Your task to perform on an android device: Search for a 1/4" hex shank drill bit on Lowe's. Image 0: 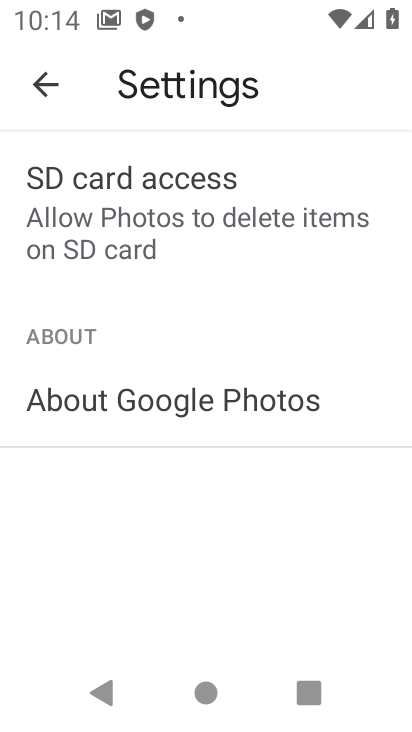
Step 0: press home button
Your task to perform on an android device: Search for a 1/4" hex shank drill bit on Lowe's. Image 1: 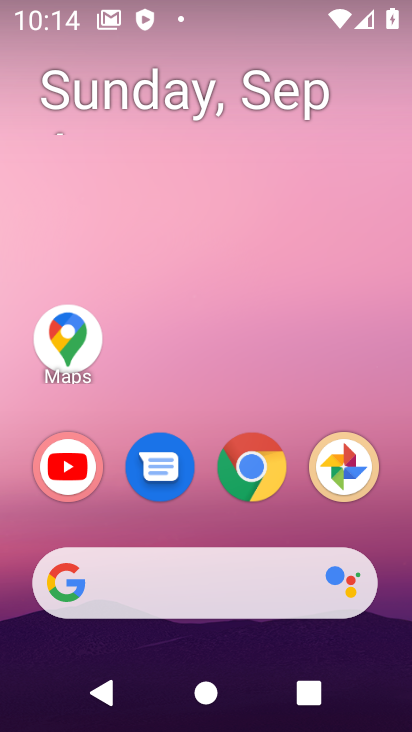
Step 1: click (259, 463)
Your task to perform on an android device: Search for a 1/4" hex shank drill bit on Lowe's. Image 2: 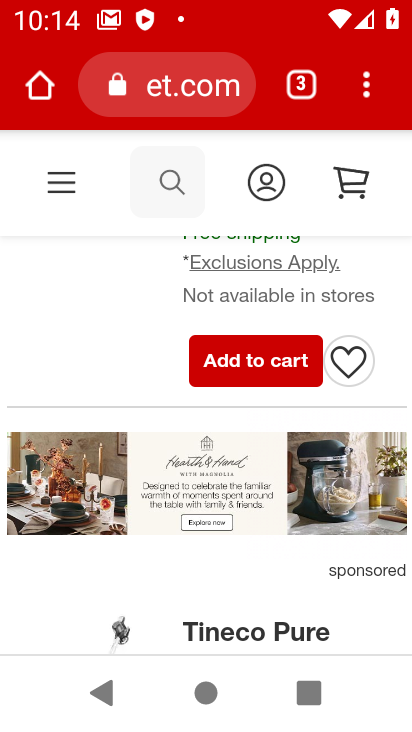
Step 2: click (185, 95)
Your task to perform on an android device: Search for a 1/4" hex shank drill bit on Lowe's. Image 3: 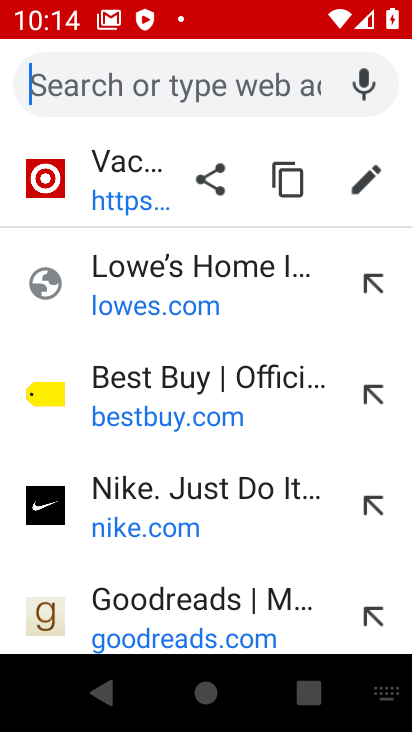
Step 3: type "lowes"
Your task to perform on an android device: Search for a 1/4" hex shank drill bit on Lowe's. Image 4: 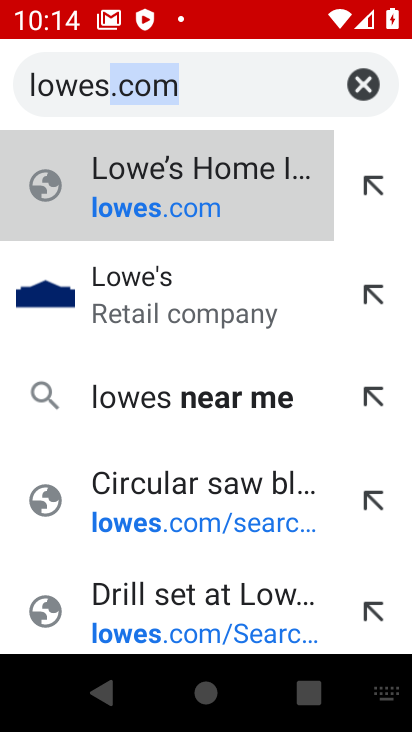
Step 4: click (119, 306)
Your task to perform on an android device: Search for a 1/4" hex shank drill bit on Lowe's. Image 5: 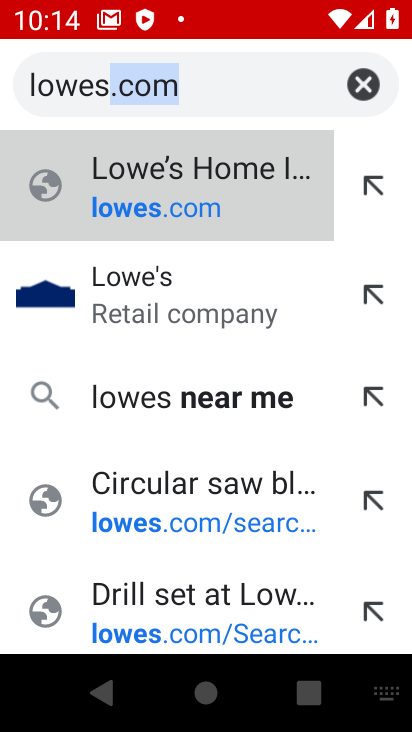
Step 5: click (119, 304)
Your task to perform on an android device: Search for a 1/4" hex shank drill bit on Lowe's. Image 6: 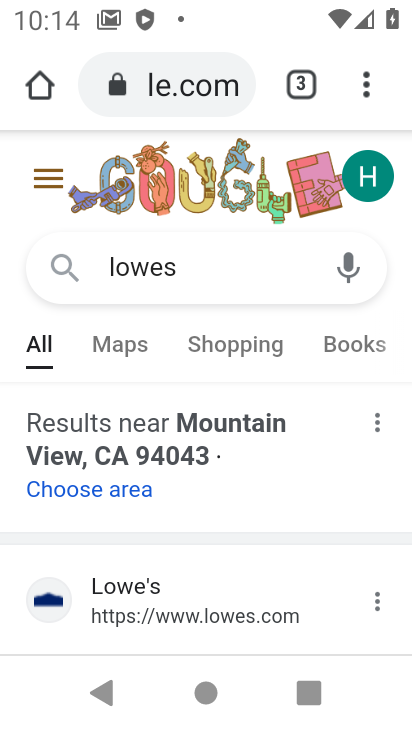
Step 6: click (117, 586)
Your task to perform on an android device: Search for a 1/4" hex shank drill bit on Lowe's. Image 7: 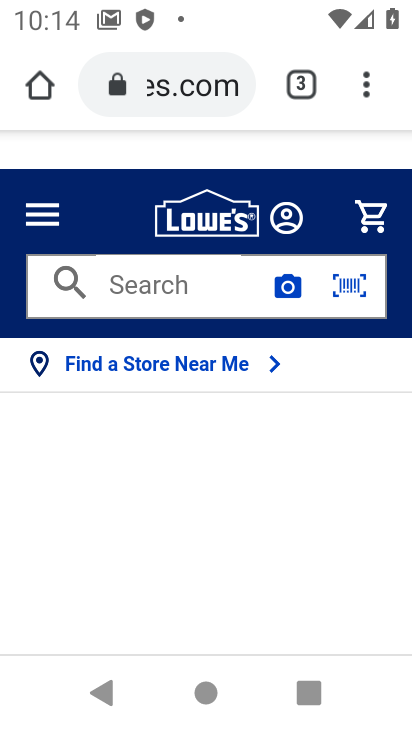
Step 7: click (168, 276)
Your task to perform on an android device: Search for a 1/4" hex shank drill bit on Lowe's. Image 8: 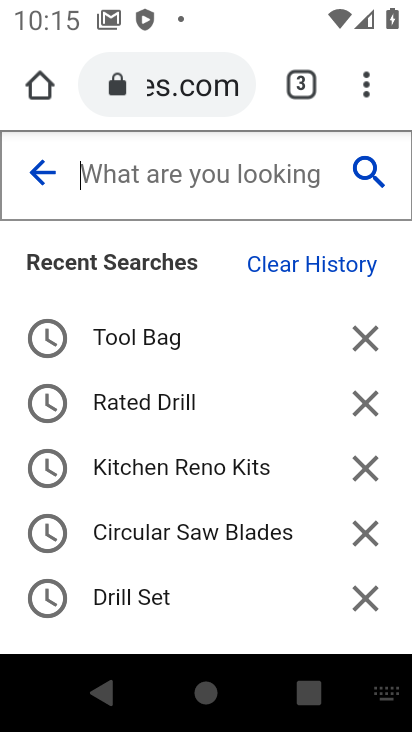
Step 8: type "hex shank drill bit"
Your task to perform on an android device: Search for a 1/4" hex shank drill bit on Lowe's. Image 9: 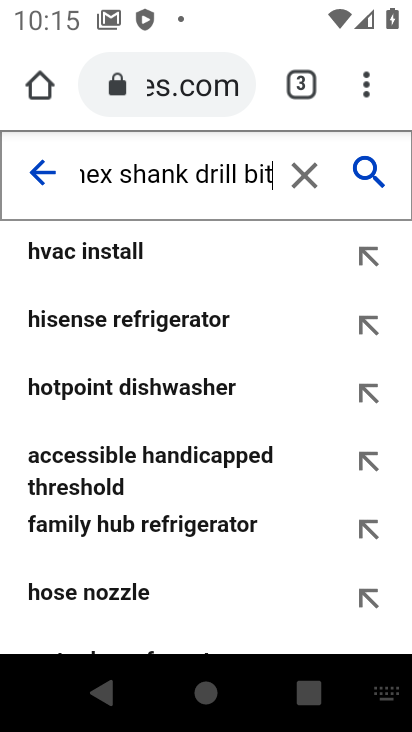
Step 9: type ""
Your task to perform on an android device: Search for a 1/4" hex shank drill bit on Lowe's. Image 10: 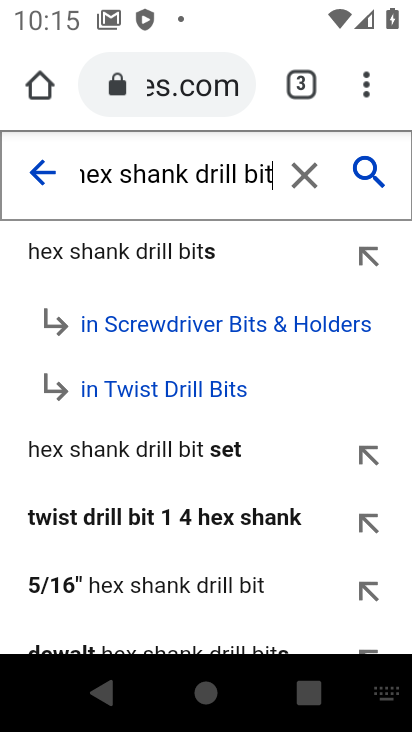
Step 10: click (157, 450)
Your task to perform on an android device: Search for a 1/4" hex shank drill bit on Lowe's. Image 11: 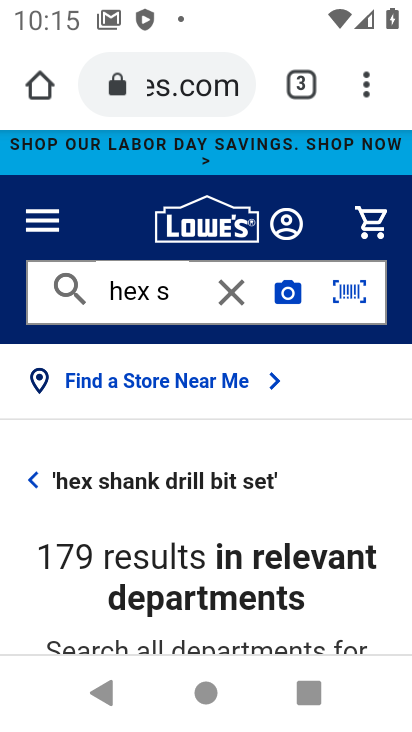
Step 11: drag from (244, 496) to (258, 184)
Your task to perform on an android device: Search for a 1/4" hex shank drill bit on Lowe's. Image 12: 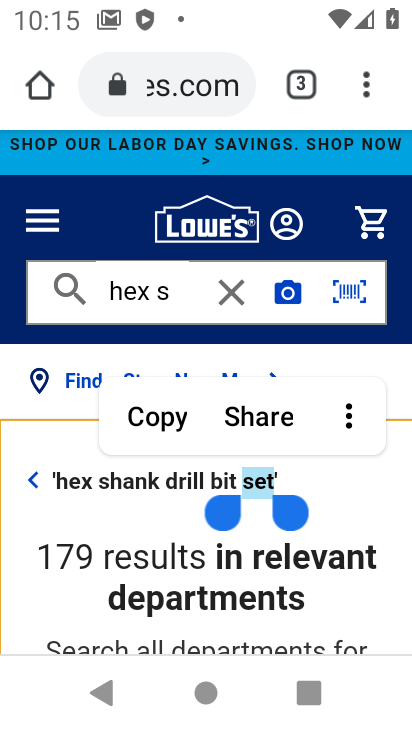
Step 12: click (396, 586)
Your task to perform on an android device: Search for a 1/4" hex shank drill bit on Lowe's. Image 13: 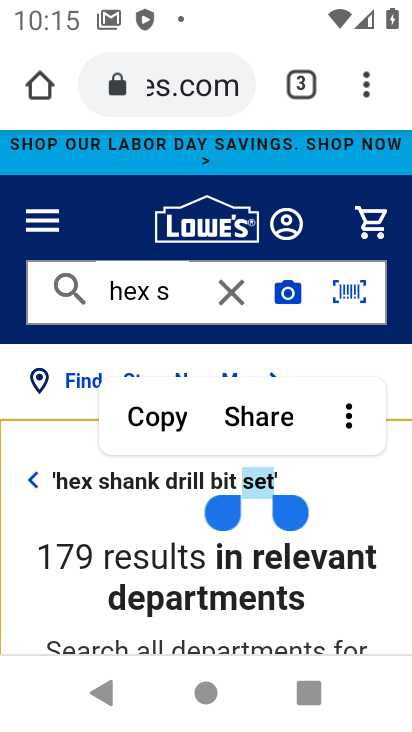
Step 13: drag from (383, 615) to (380, 385)
Your task to perform on an android device: Search for a 1/4" hex shank drill bit on Lowe's. Image 14: 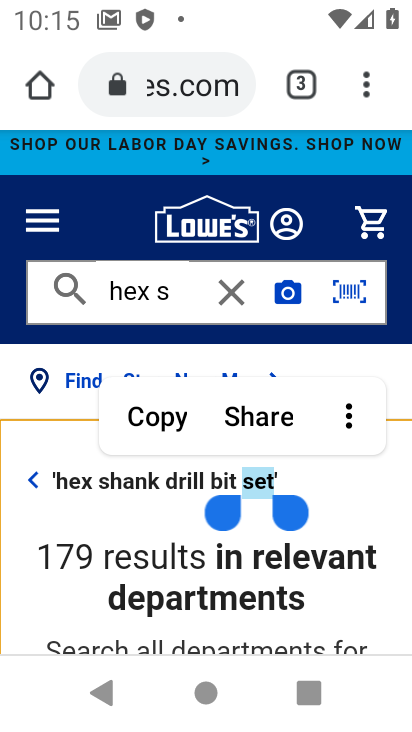
Step 14: drag from (345, 602) to (367, 384)
Your task to perform on an android device: Search for a 1/4" hex shank drill bit on Lowe's. Image 15: 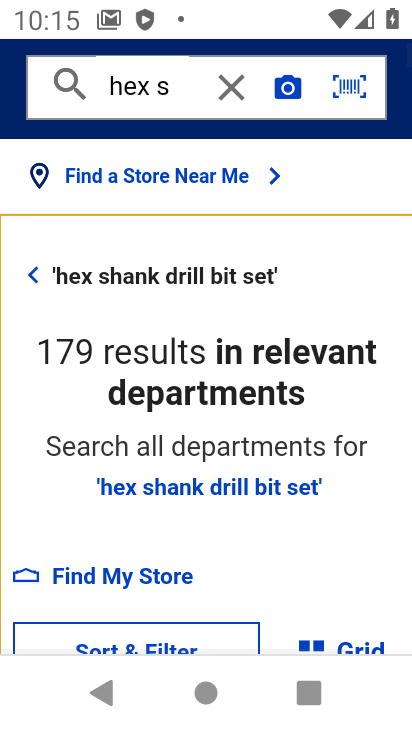
Step 15: drag from (279, 573) to (292, 276)
Your task to perform on an android device: Search for a 1/4" hex shank drill bit on Lowe's. Image 16: 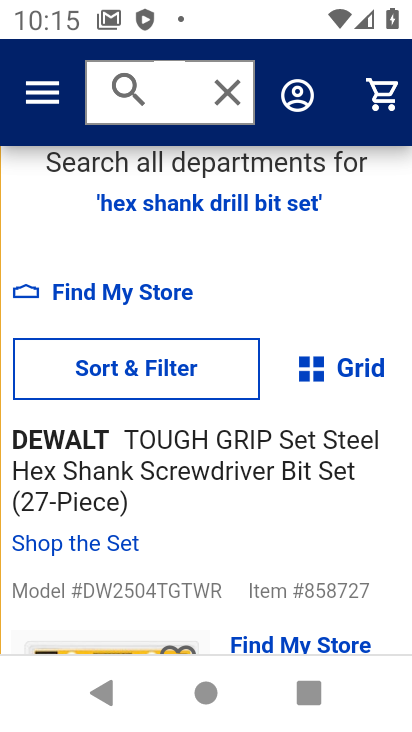
Step 16: click (165, 371)
Your task to perform on an android device: Search for a 1/4" hex shank drill bit on Lowe's. Image 17: 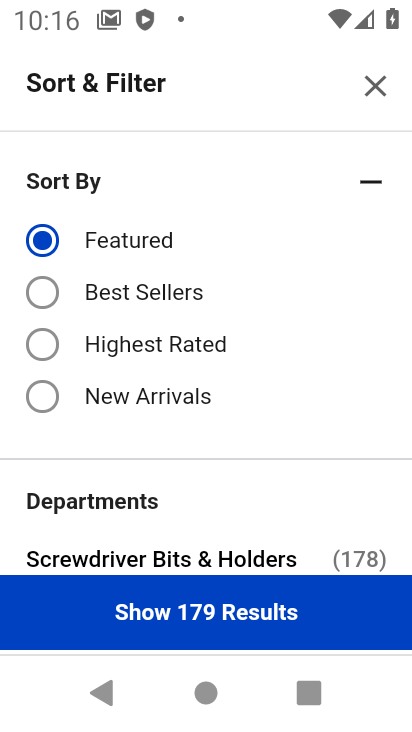
Step 17: drag from (278, 466) to (281, 307)
Your task to perform on an android device: Search for a 1/4" hex shank drill bit on Lowe's. Image 18: 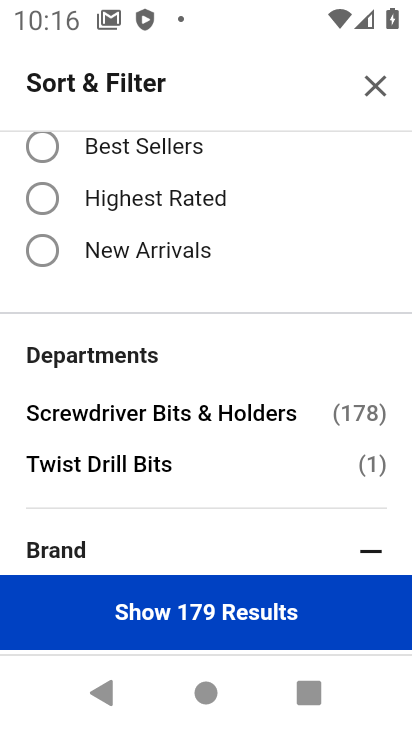
Step 18: click (45, 206)
Your task to perform on an android device: Search for a 1/4" hex shank drill bit on Lowe's. Image 19: 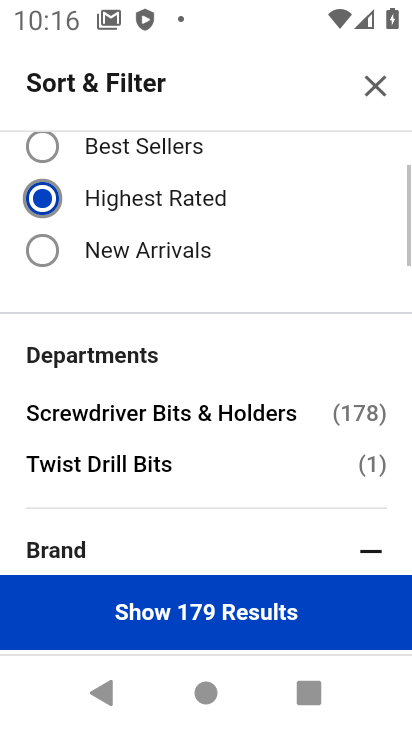
Step 19: drag from (219, 466) to (273, 290)
Your task to perform on an android device: Search for a 1/4" hex shank drill bit on Lowe's. Image 20: 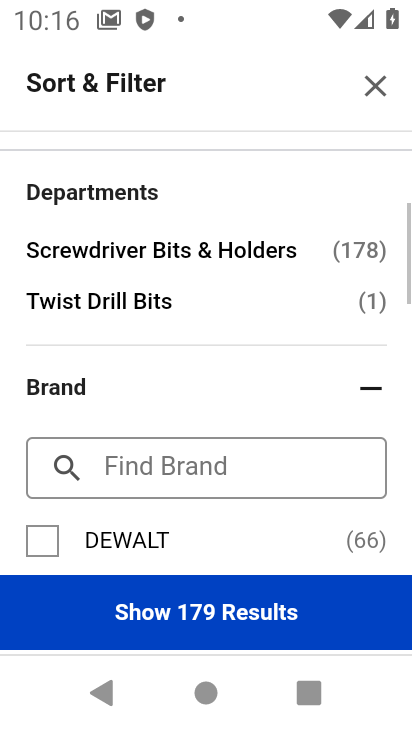
Step 20: drag from (230, 484) to (286, 179)
Your task to perform on an android device: Search for a 1/4" hex shank drill bit on Lowe's. Image 21: 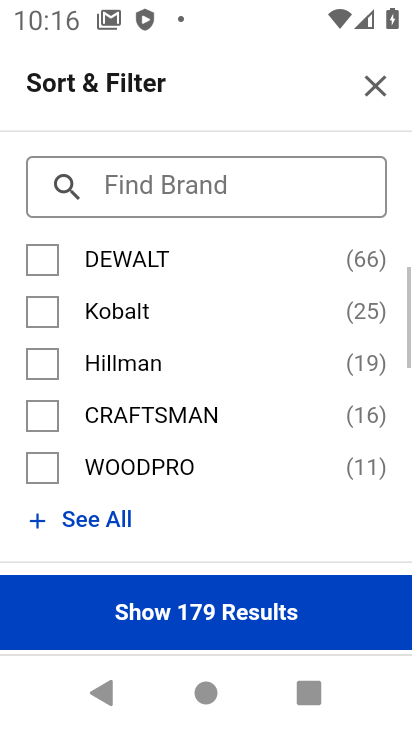
Step 21: drag from (173, 472) to (152, 160)
Your task to perform on an android device: Search for a 1/4" hex shank drill bit on Lowe's. Image 22: 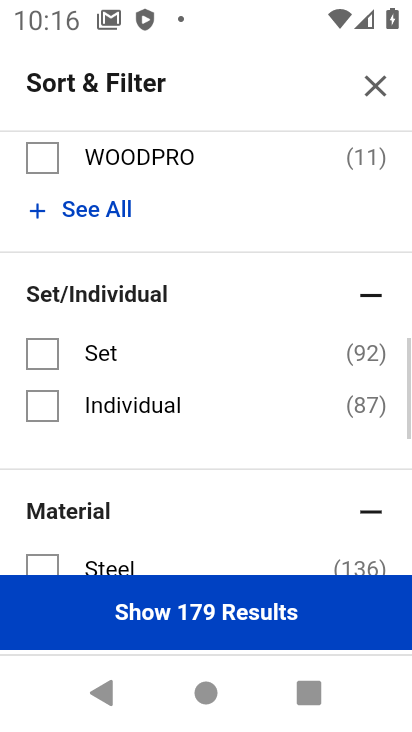
Step 22: drag from (171, 511) to (142, 139)
Your task to perform on an android device: Search for a 1/4" hex shank drill bit on Lowe's. Image 23: 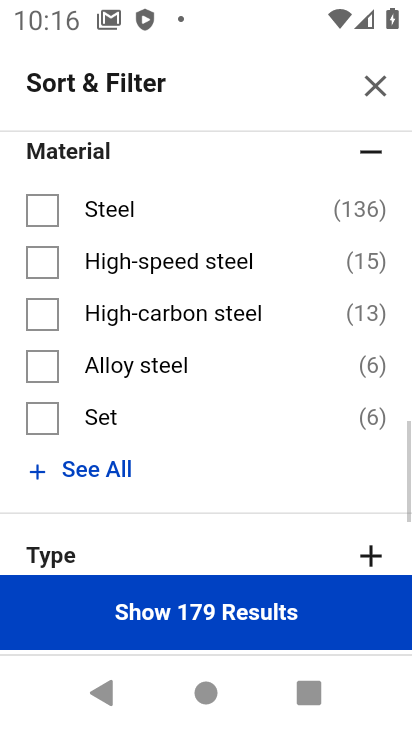
Step 23: drag from (267, 511) to (302, 192)
Your task to perform on an android device: Search for a 1/4" hex shank drill bit on Lowe's. Image 24: 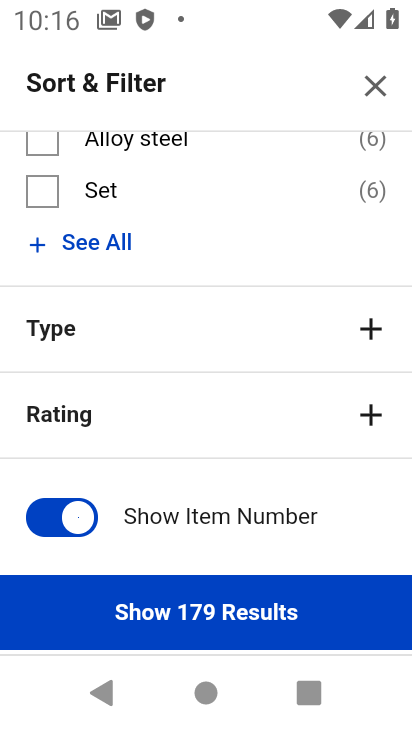
Step 24: click (64, 416)
Your task to perform on an android device: Search for a 1/4" hex shank drill bit on Lowe's. Image 25: 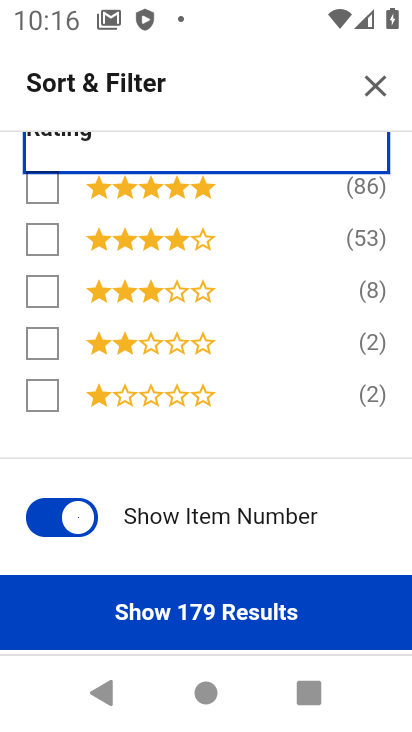
Step 25: click (55, 184)
Your task to perform on an android device: Search for a 1/4" hex shank drill bit on Lowe's. Image 26: 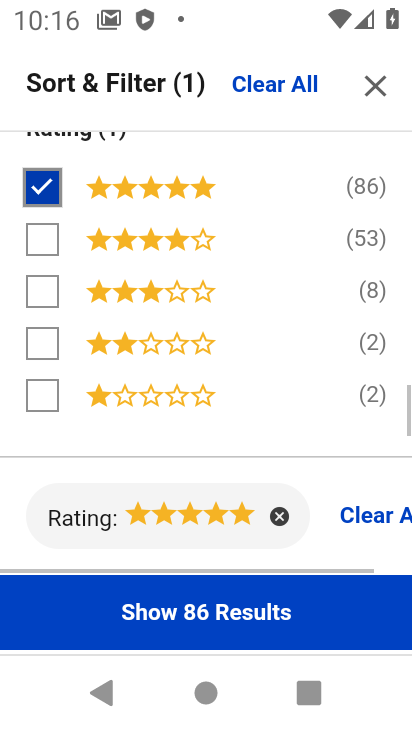
Step 26: click (210, 611)
Your task to perform on an android device: Search for a 1/4" hex shank drill bit on Lowe's. Image 27: 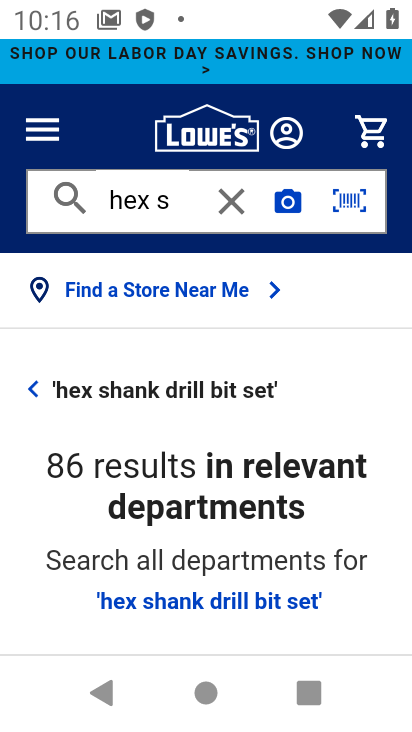
Step 27: drag from (305, 533) to (344, 221)
Your task to perform on an android device: Search for a 1/4" hex shank drill bit on Lowe's. Image 28: 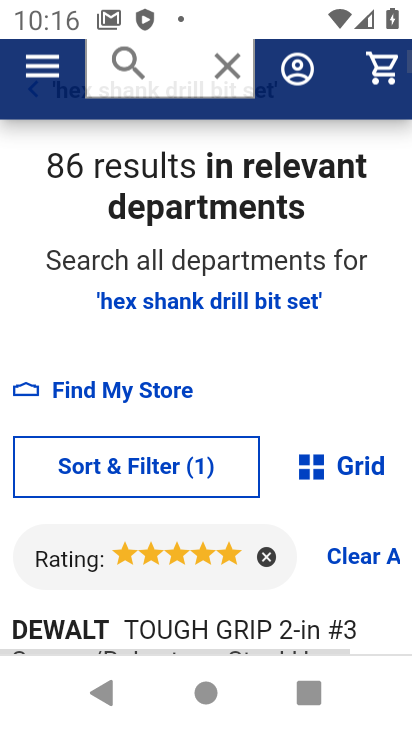
Step 28: drag from (251, 558) to (292, 276)
Your task to perform on an android device: Search for a 1/4" hex shank drill bit on Lowe's. Image 29: 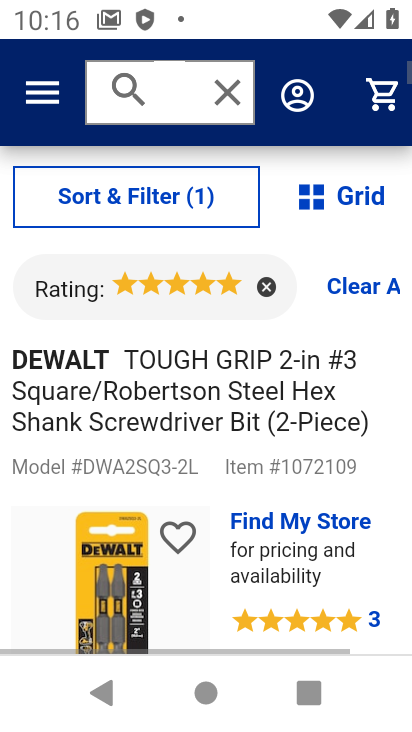
Step 29: drag from (268, 473) to (282, 299)
Your task to perform on an android device: Search for a 1/4" hex shank drill bit on Lowe's. Image 30: 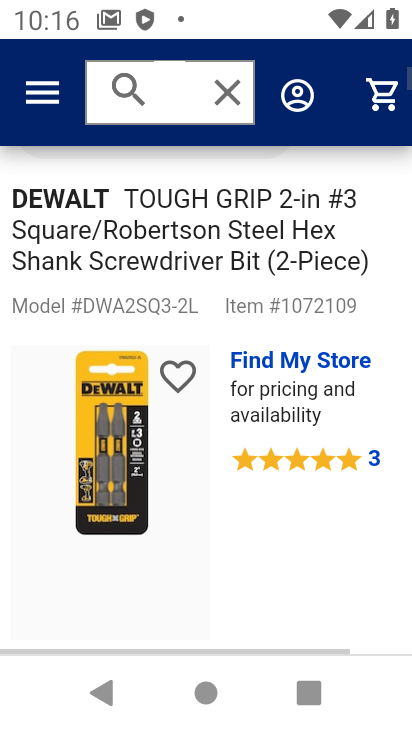
Step 30: drag from (284, 537) to (325, 240)
Your task to perform on an android device: Search for a 1/4" hex shank drill bit on Lowe's. Image 31: 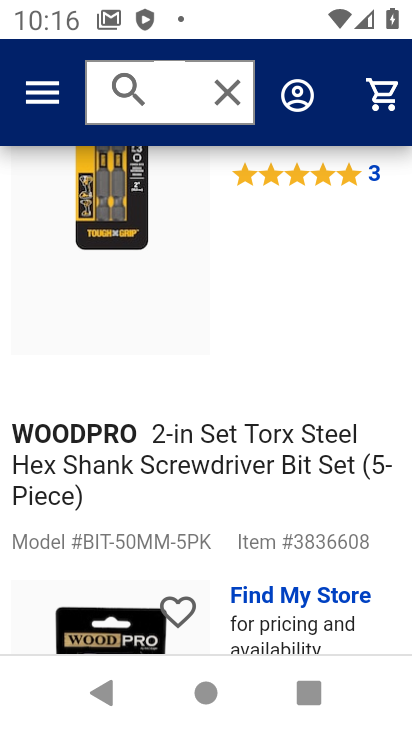
Step 31: drag from (231, 467) to (269, 330)
Your task to perform on an android device: Search for a 1/4" hex shank drill bit on Lowe's. Image 32: 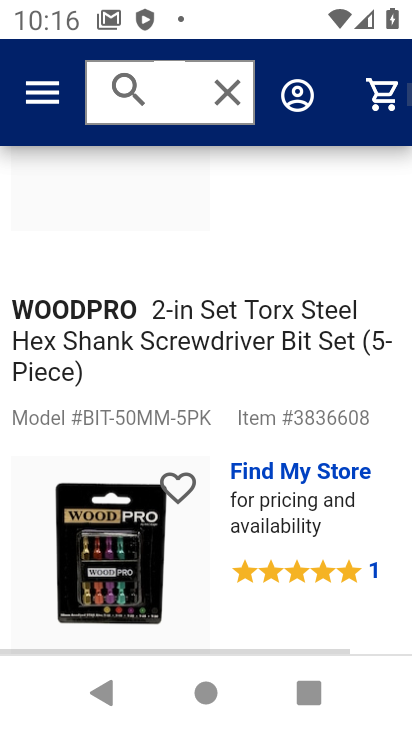
Step 32: drag from (267, 573) to (318, 308)
Your task to perform on an android device: Search for a 1/4" hex shank drill bit on Lowe's. Image 33: 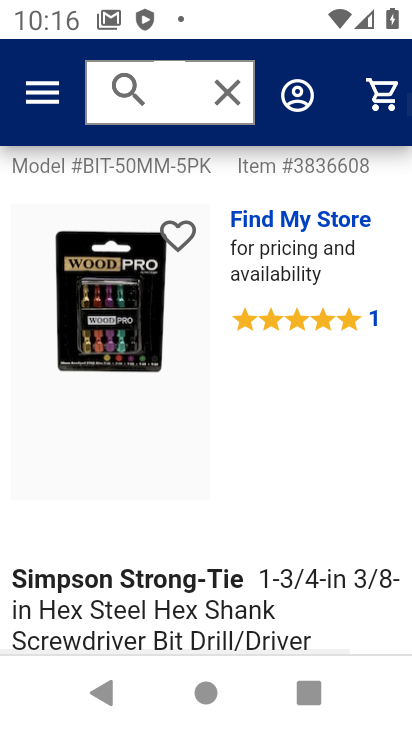
Step 33: drag from (287, 483) to (308, 304)
Your task to perform on an android device: Search for a 1/4" hex shank drill bit on Lowe's. Image 34: 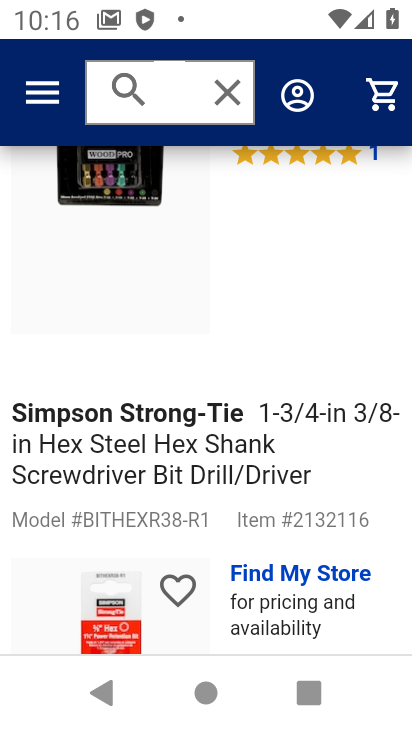
Step 34: drag from (299, 593) to (283, 259)
Your task to perform on an android device: Search for a 1/4" hex shank drill bit on Lowe's. Image 35: 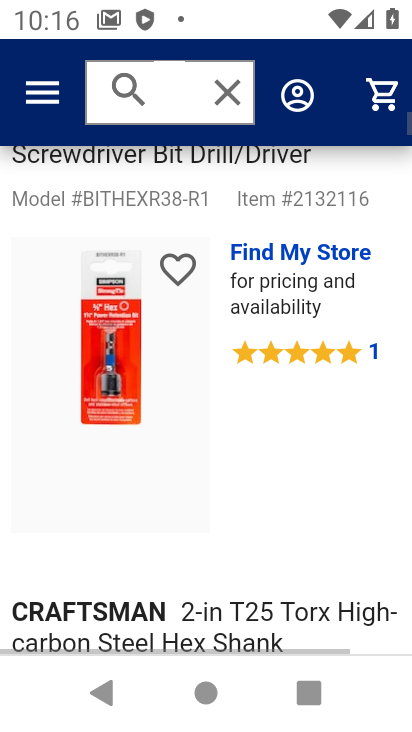
Step 35: drag from (226, 533) to (249, 289)
Your task to perform on an android device: Search for a 1/4" hex shank drill bit on Lowe's. Image 36: 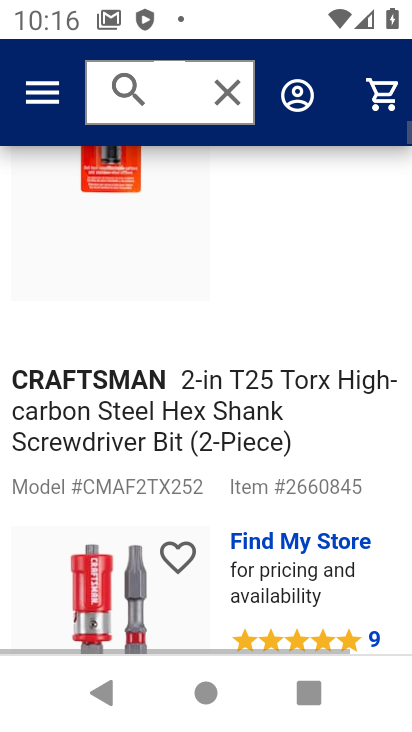
Step 36: drag from (244, 524) to (263, 304)
Your task to perform on an android device: Search for a 1/4" hex shank drill bit on Lowe's. Image 37: 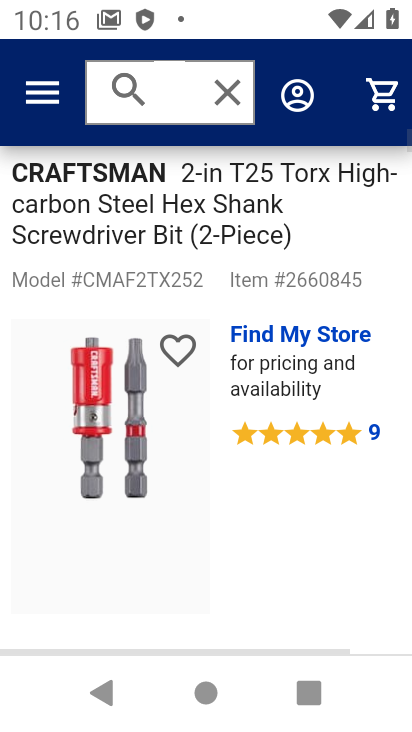
Step 37: drag from (189, 560) to (221, 292)
Your task to perform on an android device: Search for a 1/4" hex shank drill bit on Lowe's. Image 38: 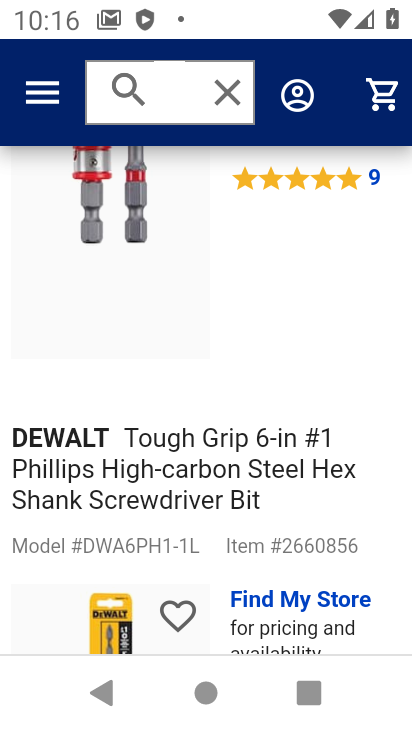
Step 38: drag from (165, 520) to (193, 400)
Your task to perform on an android device: Search for a 1/4" hex shank drill bit on Lowe's. Image 39: 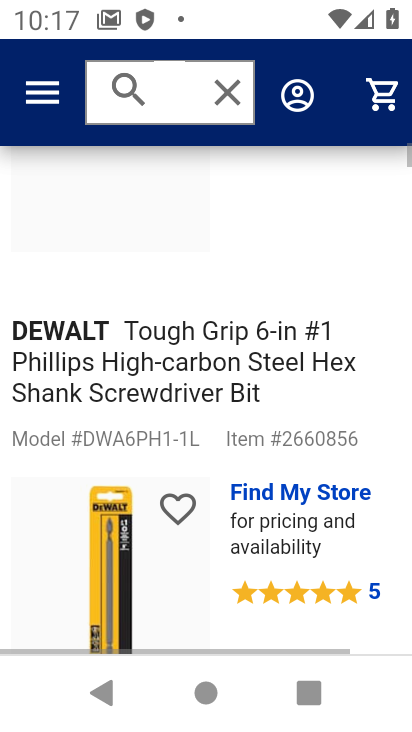
Step 39: drag from (173, 562) to (124, 324)
Your task to perform on an android device: Search for a 1/4" hex shank drill bit on Lowe's. Image 40: 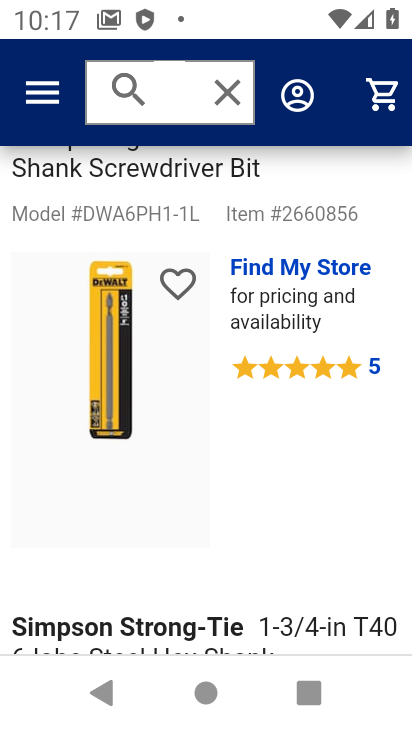
Step 40: drag from (247, 390) to (252, 236)
Your task to perform on an android device: Search for a 1/4" hex shank drill bit on Lowe's. Image 41: 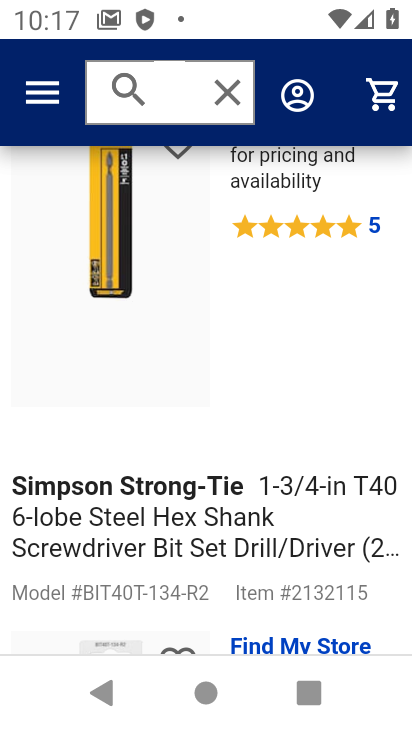
Step 41: drag from (197, 553) to (219, 335)
Your task to perform on an android device: Search for a 1/4" hex shank drill bit on Lowe's. Image 42: 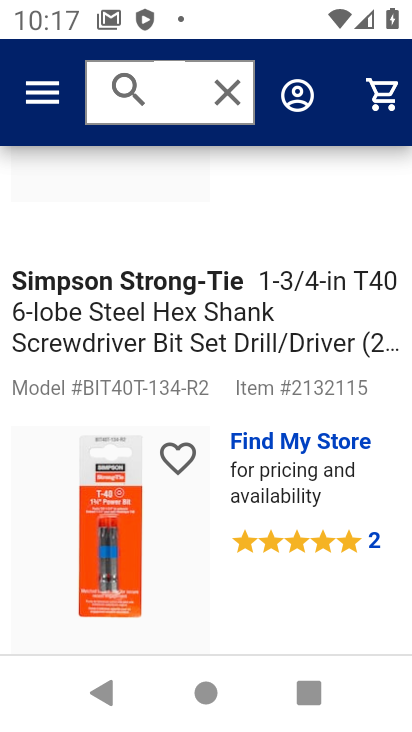
Step 42: drag from (230, 583) to (273, 262)
Your task to perform on an android device: Search for a 1/4" hex shank drill bit on Lowe's. Image 43: 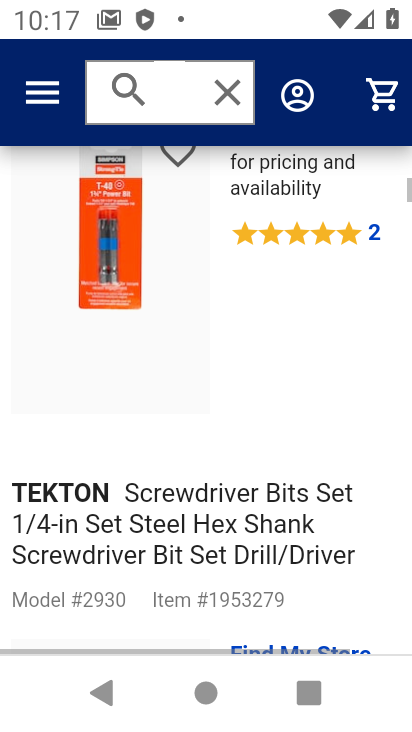
Step 43: drag from (208, 559) to (252, 366)
Your task to perform on an android device: Search for a 1/4" hex shank drill bit on Lowe's. Image 44: 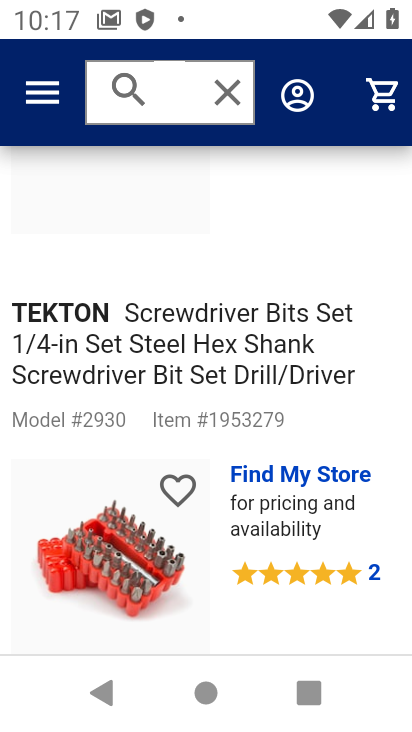
Step 44: click (97, 542)
Your task to perform on an android device: Search for a 1/4" hex shank drill bit on Lowe's. Image 45: 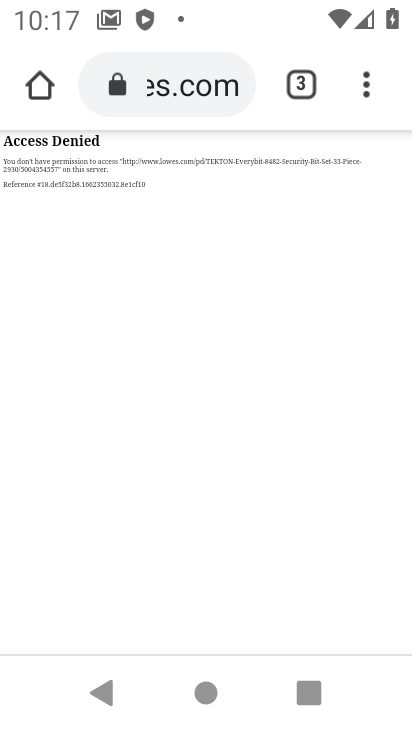
Step 45: task complete